Your task to perform on an android device: install app "Lyft - Rideshare, Bikes, Scooters & Transit" Image 0: 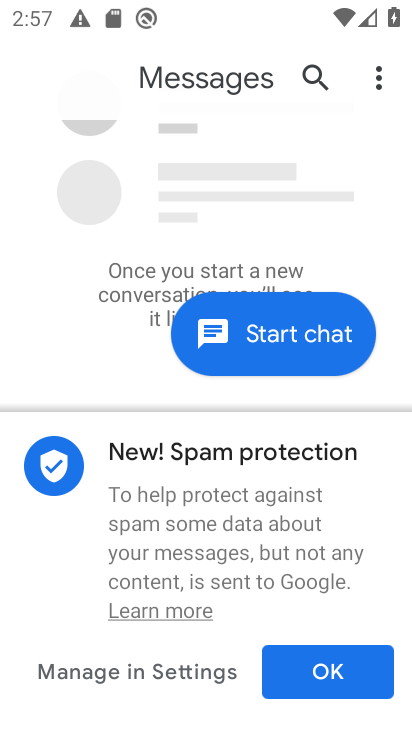
Step 0: press home button
Your task to perform on an android device: install app "Lyft - Rideshare, Bikes, Scooters & Transit" Image 1: 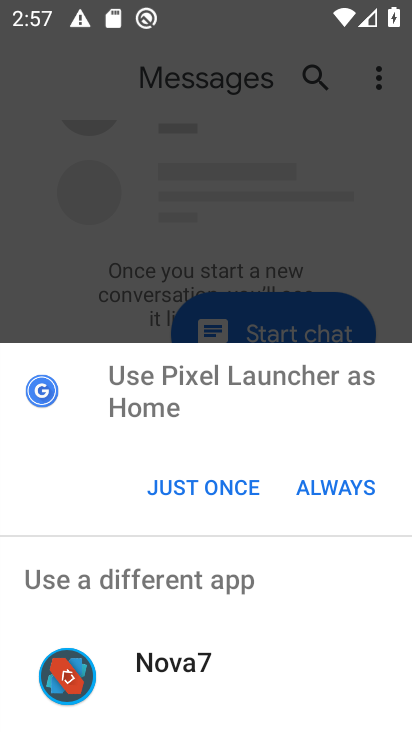
Step 1: click (200, 489)
Your task to perform on an android device: install app "Lyft - Rideshare, Bikes, Scooters & Transit" Image 2: 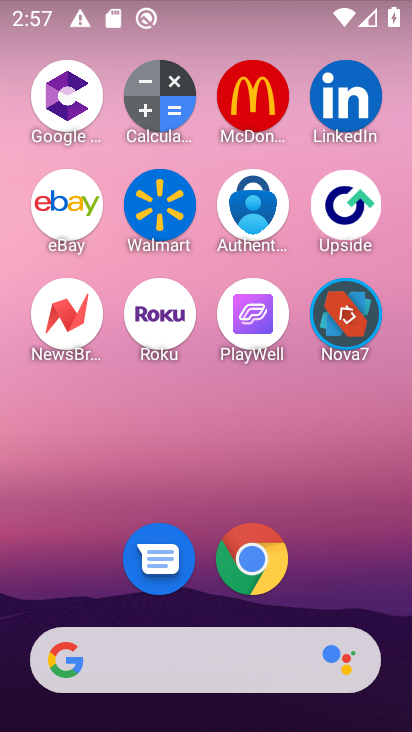
Step 2: drag from (194, 636) to (201, 211)
Your task to perform on an android device: install app "Lyft - Rideshare, Bikes, Scooters & Transit" Image 3: 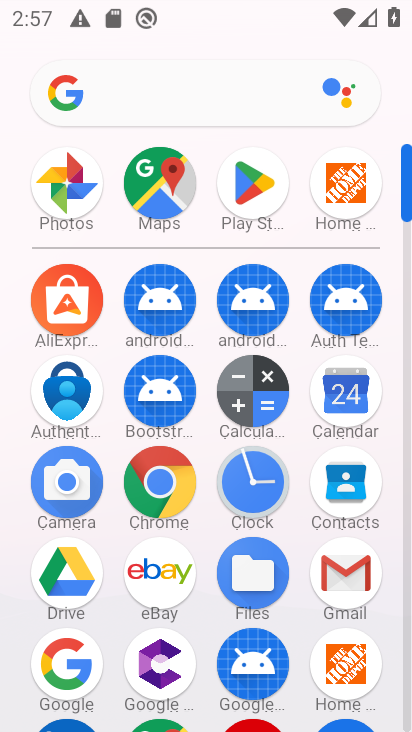
Step 3: click (235, 200)
Your task to perform on an android device: install app "Lyft - Rideshare, Bikes, Scooters & Transit" Image 4: 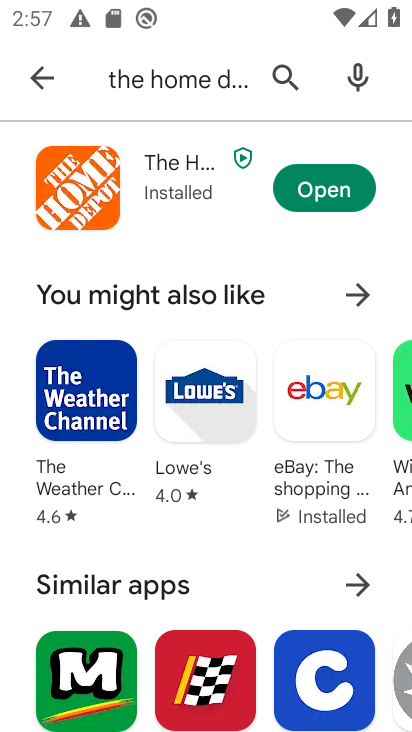
Step 4: click (285, 72)
Your task to perform on an android device: install app "Lyft - Rideshare, Bikes, Scooters & Transit" Image 5: 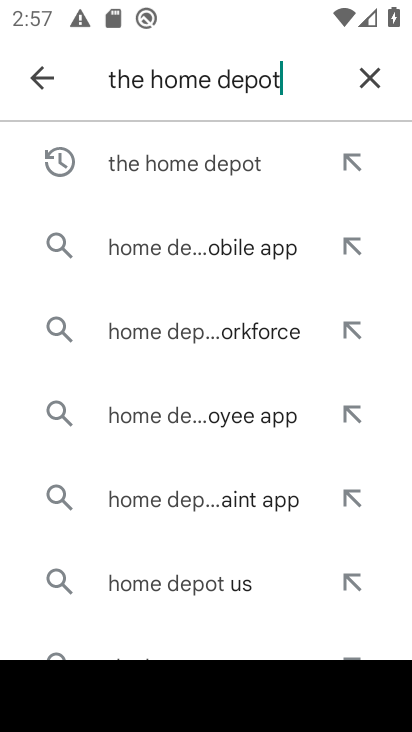
Step 5: click (369, 82)
Your task to perform on an android device: install app "Lyft - Rideshare, Bikes, Scooters & Transit" Image 6: 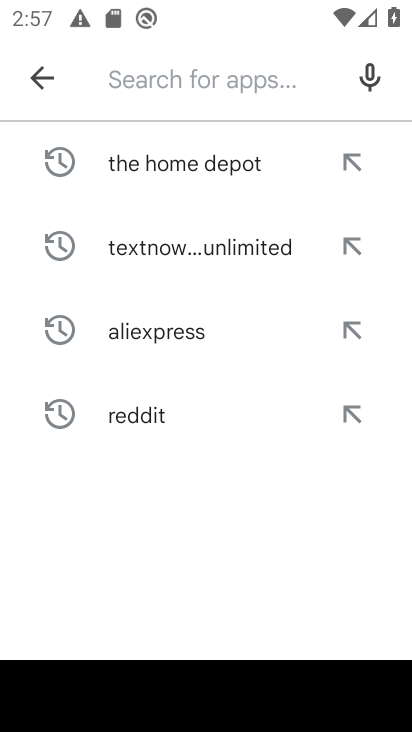
Step 6: type "Lyft - Rideshare, Bikes, Scooters & Transit"
Your task to perform on an android device: install app "Lyft - Rideshare, Bikes, Scooters & Transit" Image 7: 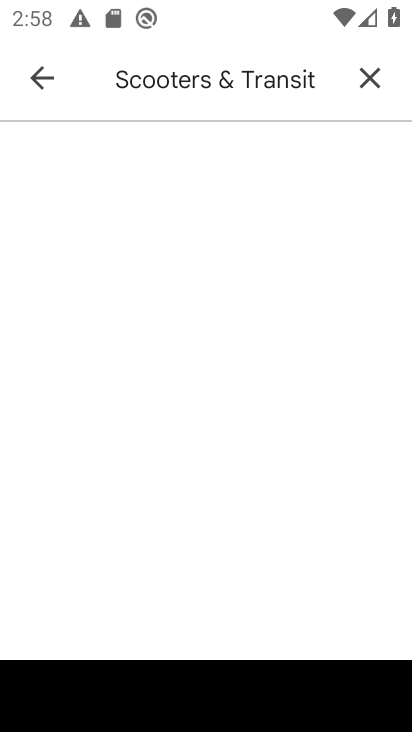
Step 7: task complete